Your task to perform on an android device: check data usage Image 0: 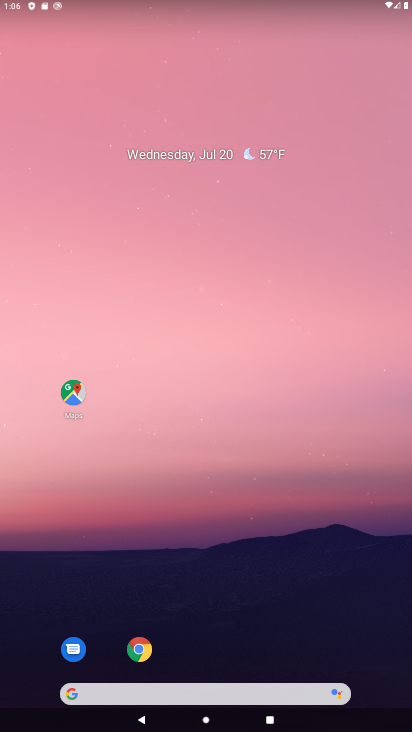
Step 0: drag from (221, 522) to (304, 50)
Your task to perform on an android device: check data usage Image 1: 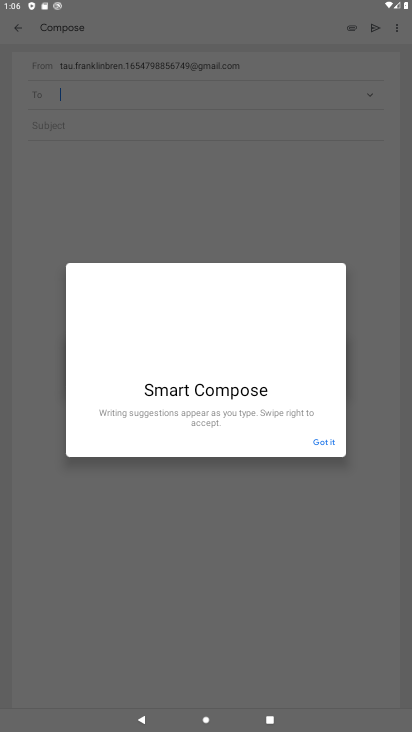
Step 1: press home button
Your task to perform on an android device: check data usage Image 2: 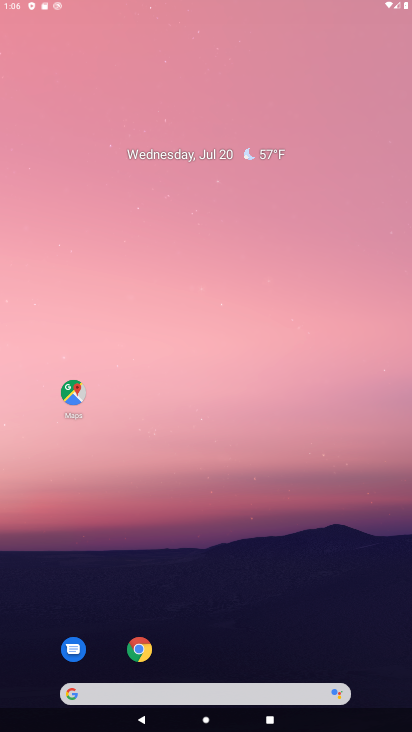
Step 2: press home button
Your task to perform on an android device: check data usage Image 3: 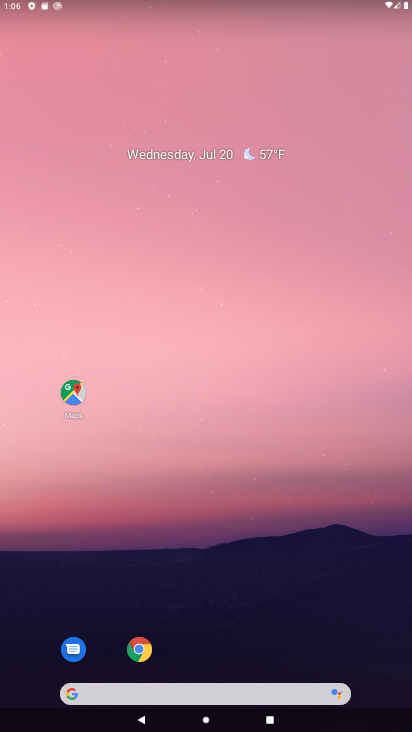
Step 3: drag from (252, 347) to (297, 137)
Your task to perform on an android device: check data usage Image 4: 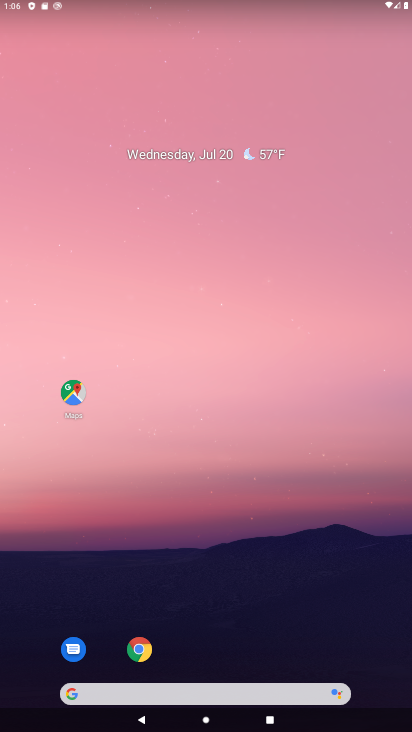
Step 4: drag from (258, 671) to (320, 60)
Your task to perform on an android device: check data usage Image 5: 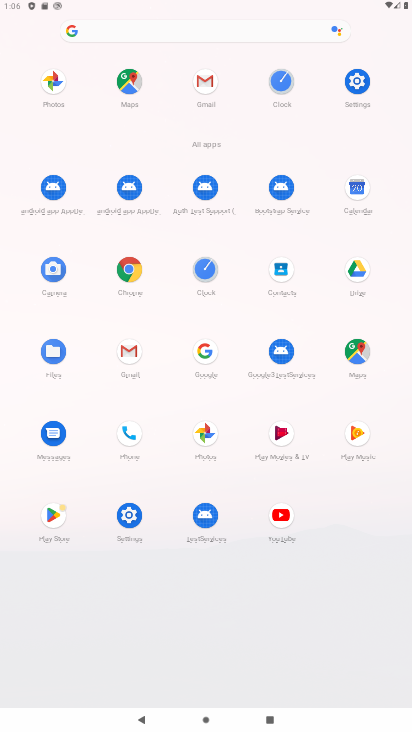
Step 5: click (119, 523)
Your task to perform on an android device: check data usage Image 6: 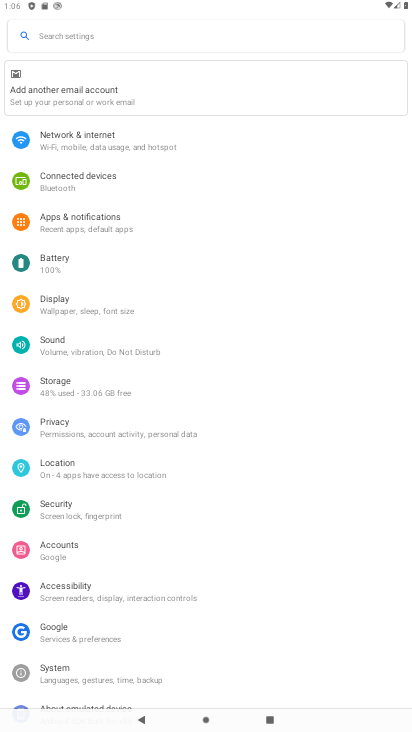
Step 6: click (163, 139)
Your task to perform on an android device: check data usage Image 7: 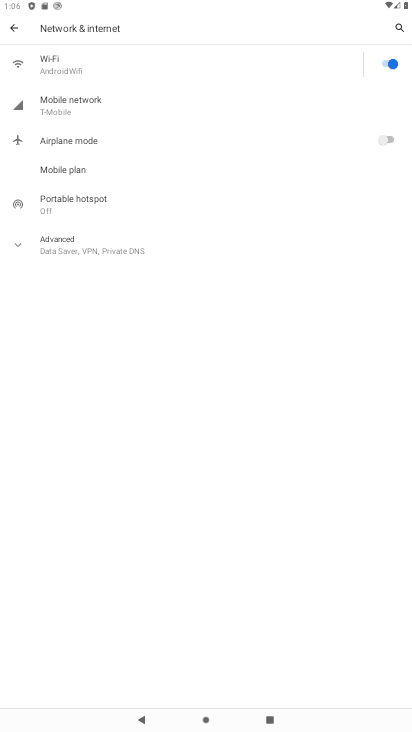
Step 7: click (131, 111)
Your task to perform on an android device: check data usage Image 8: 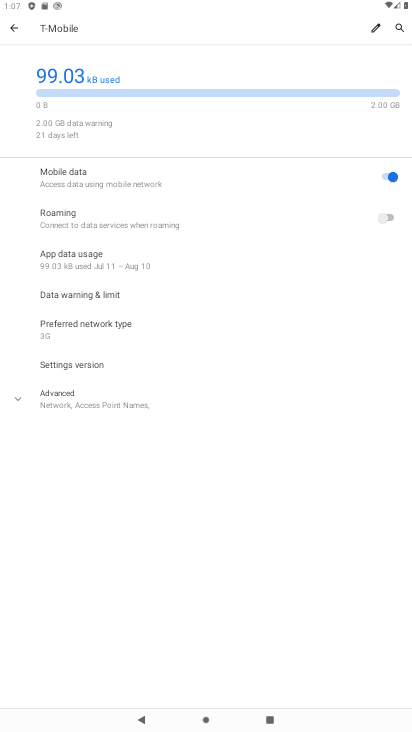
Step 8: click (189, 270)
Your task to perform on an android device: check data usage Image 9: 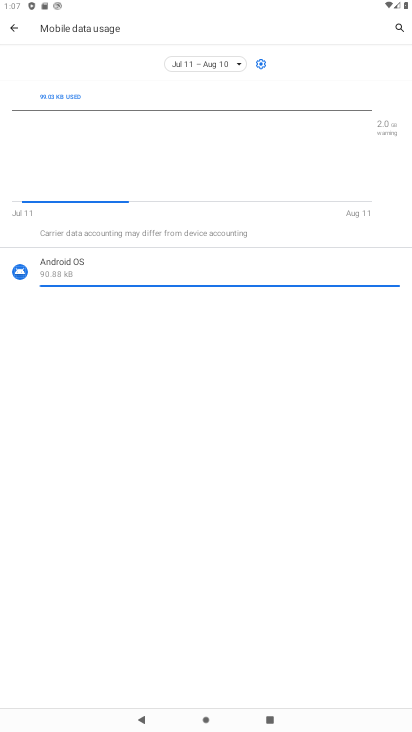
Step 9: task complete